Your task to perform on an android device: add a contact in the contacts app Image 0: 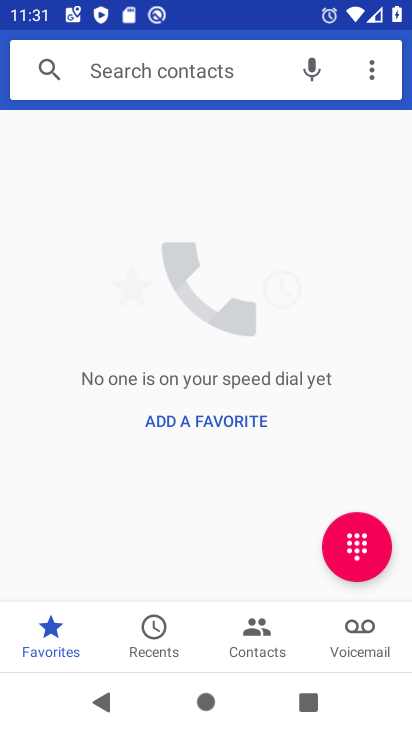
Step 0: press home button
Your task to perform on an android device: add a contact in the contacts app Image 1: 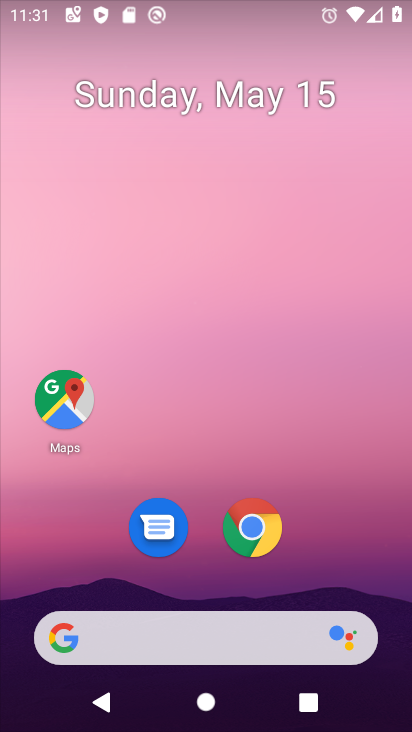
Step 1: drag from (329, 564) to (304, 41)
Your task to perform on an android device: add a contact in the contacts app Image 2: 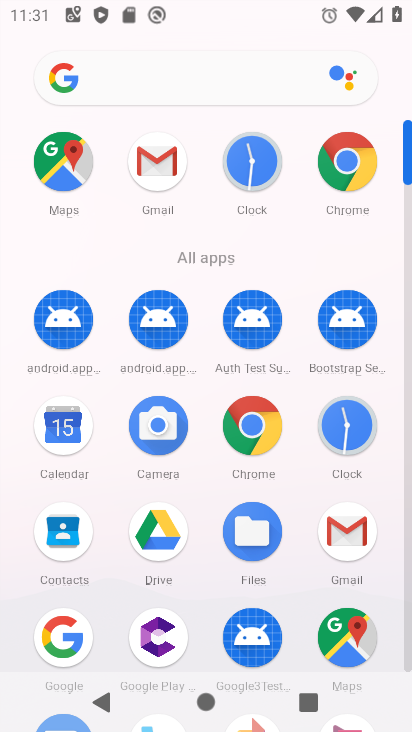
Step 2: click (51, 560)
Your task to perform on an android device: add a contact in the contacts app Image 3: 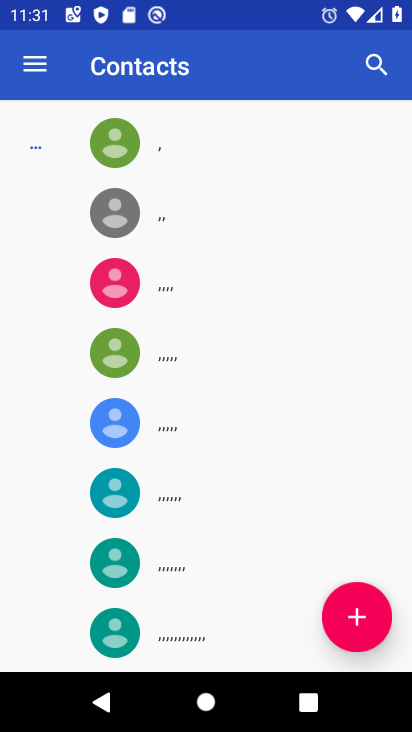
Step 3: click (370, 605)
Your task to perform on an android device: add a contact in the contacts app Image 4: 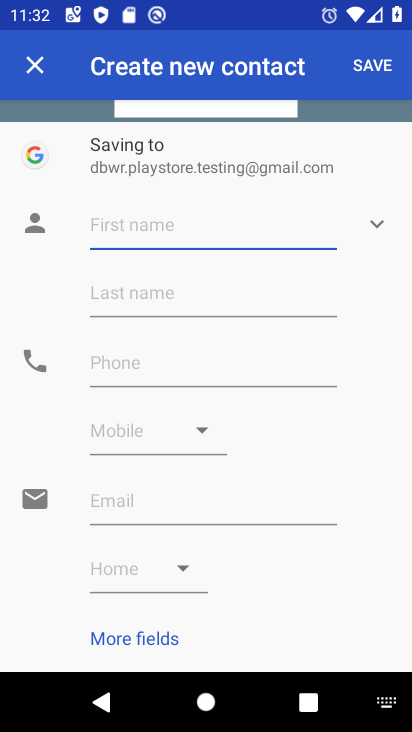
Step 4: type "sfsfs"
Your task to perform on an android device: add a contact in the contacts app Image 5: 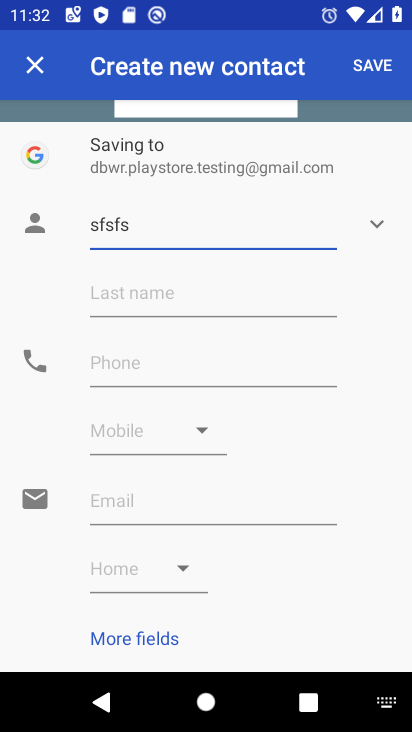
Step 5: click (287, 284)
Your task to perform on an android device: add a contact in the contacts app Image 6: 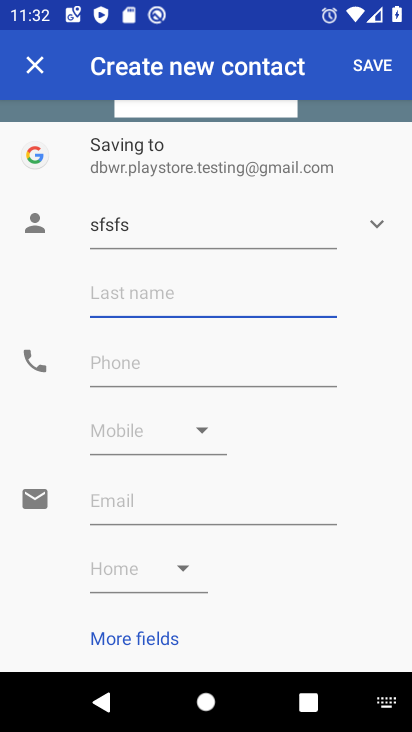
Step 6: type "sfsfs"
Your task to perform on an android device: add a contact in the contacts app Image 7: 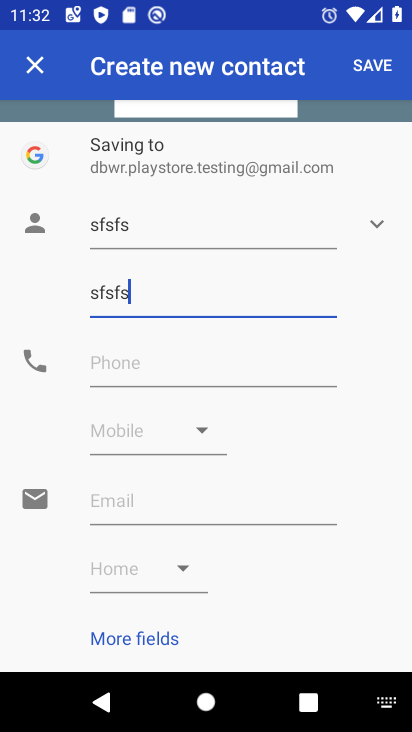
Step 7: click (187, 362)
Your task to perform on an android device: add a contact in the contacts app Image 8: 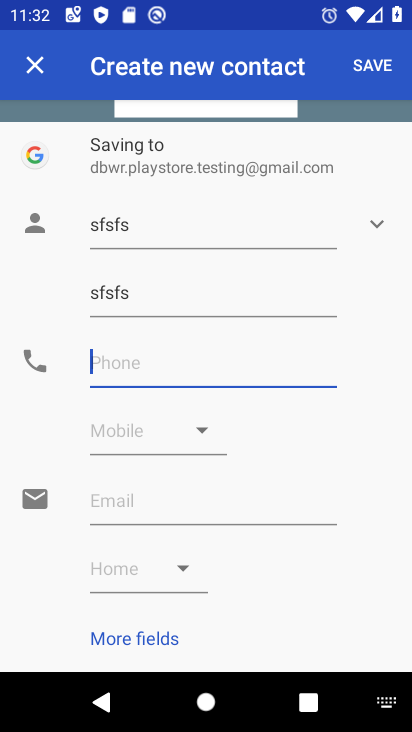
Step 8: type "56456754"
Your task to perform on an android device: add a contact in the contacts app Image 9: 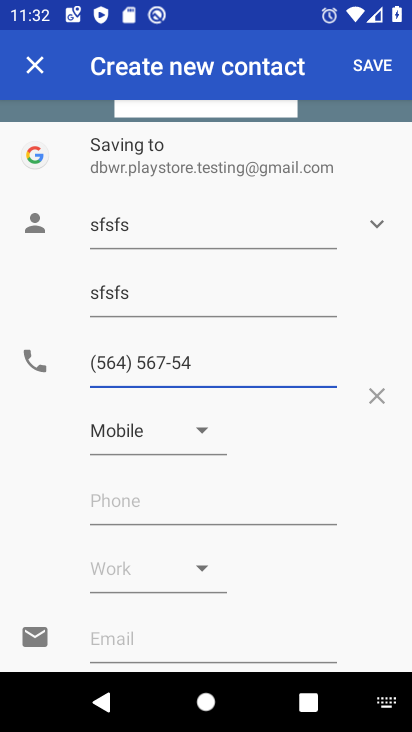
Step 9: click (382, 69)
Your task to perform on an android device: add a contact in the contacts app Image 10: 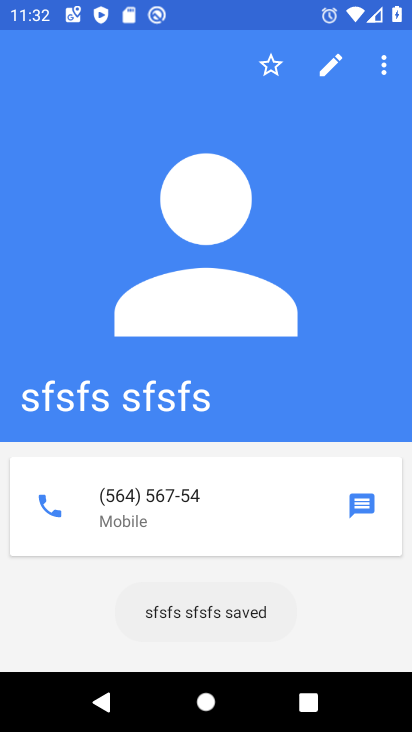
Step 10: task complete